Your task to perform on an android device: Go to battery settings Image 0: 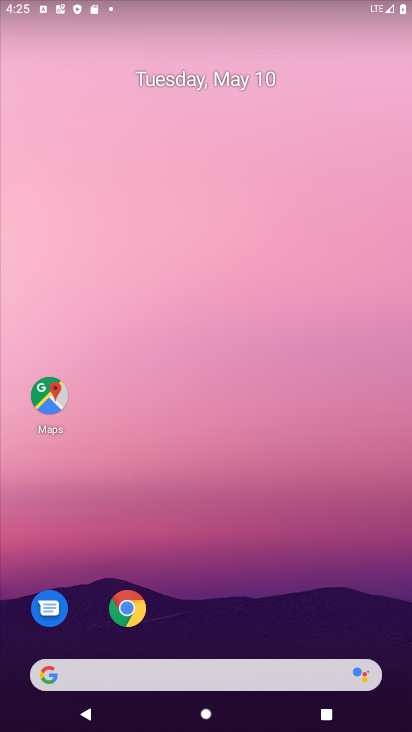
Step 0: drag from (325, 246) to (320, 81)
Your task to perform on an android device: Go to battery settings Image 1: 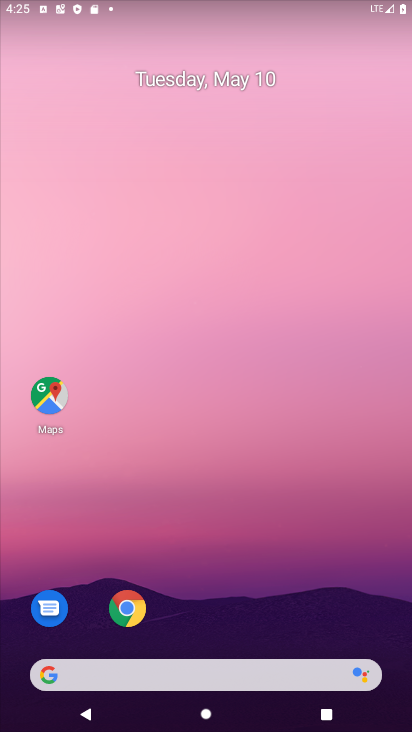
Step 1: drag from (375, 647) to (267, 70)
Your task to perform on an android device: Go to battery settings Image 2: 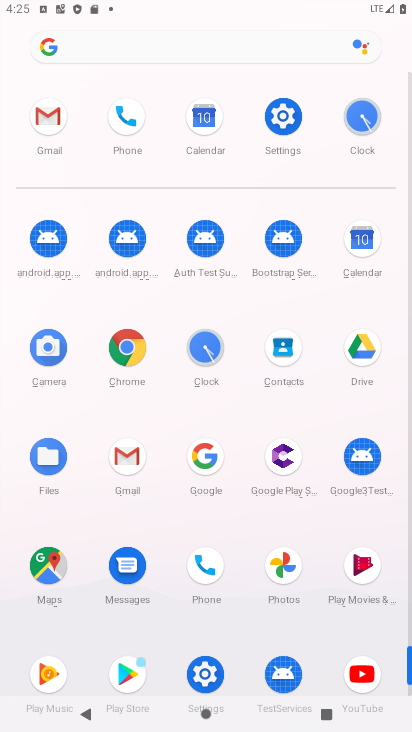
Step 2: click (202, 676)
Your task to perform on an android device: Go to battery settings Image 3: 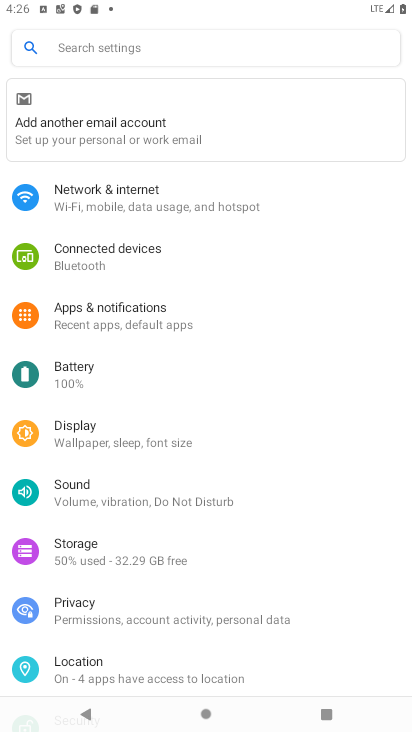
Step 3: click (78, 374)
Your task to perform on an android device: Go to battery settings Image 4: 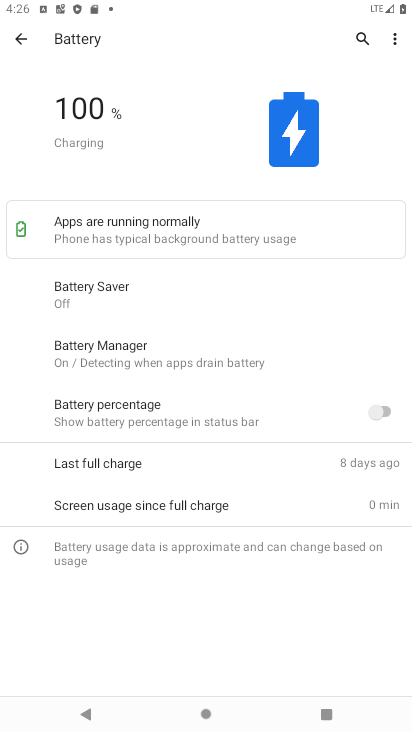
Step 4: task complete